Your task to perform on an android device: turn smart compose on in the gmail app Image 0: 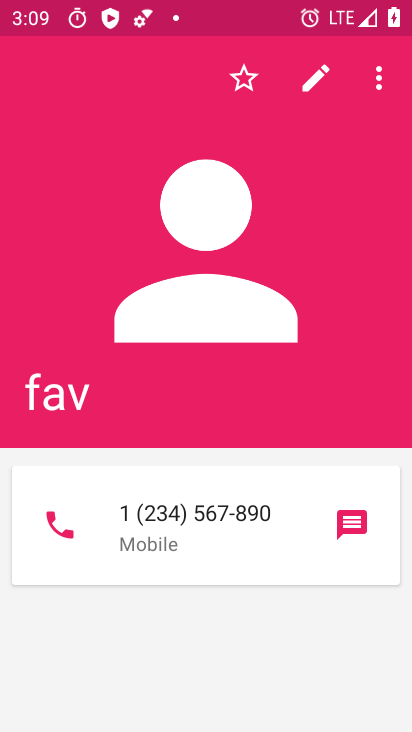
Step 0: press home button
Your task to perform on an android device: turn smart compose on in the gmail app Image 1: 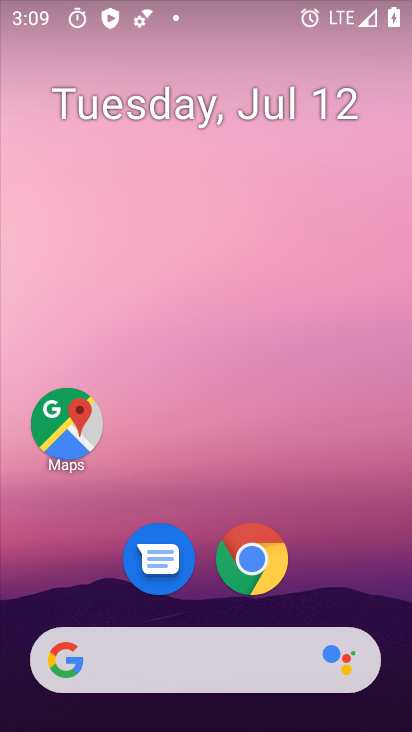
Step 1: drag from (372, 567) to (391, 118)
Your task to perform on an android device: turn smart compose on in the gmail app Image 2: 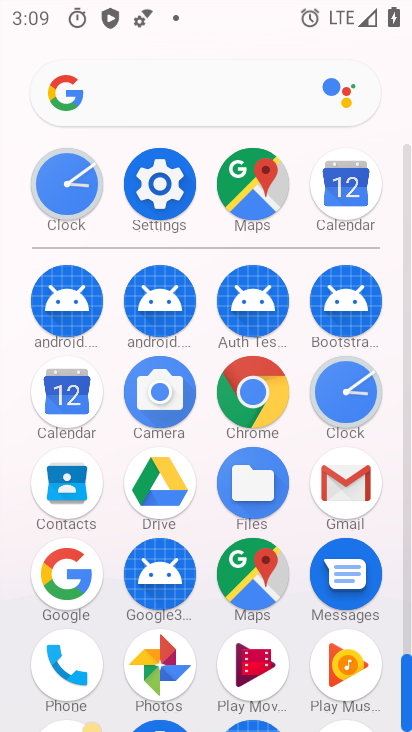
Step 2: click (354, 482)
Your task to perform on an android device: turn smart compose on in the gmail app Image 3: 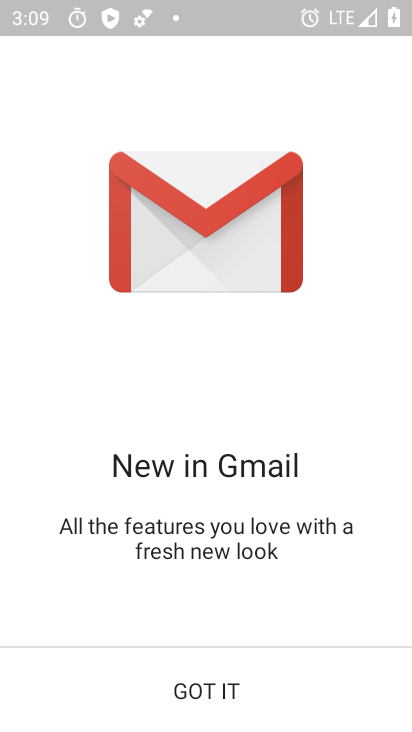
Step 3: click (252, 676)
Your task to perform on an android device: turn smart compose on in the gmail app Image 4: 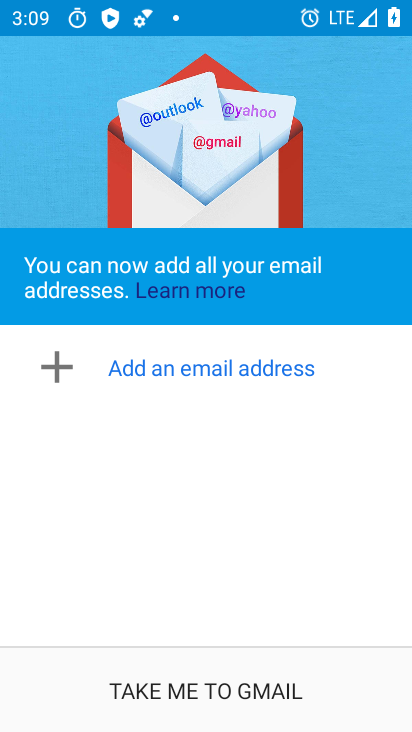
Step 4: click (246, 696)
Your task to perform on an android device: turn smart compose on in the gmail app Image 5: 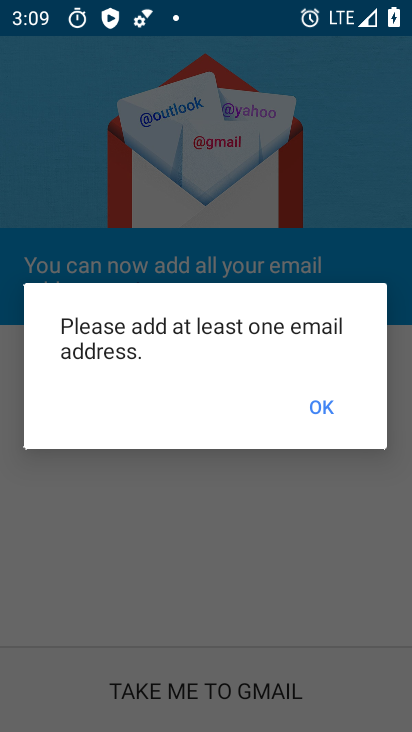
Step 5: task complete